Your task to perform on an android device: toggle improve location accuracy Image 0: 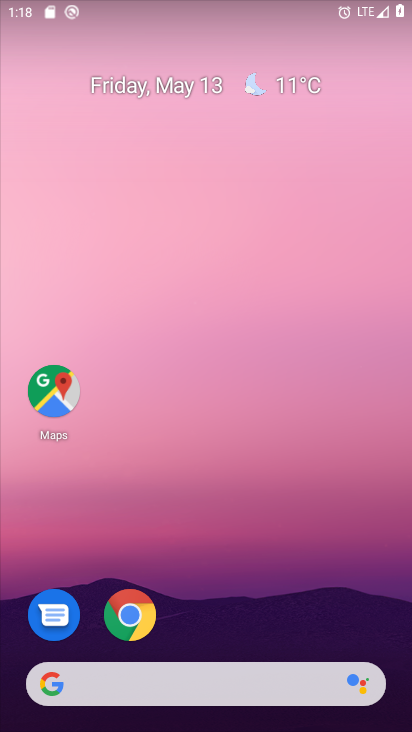
Step 0: drag from (195, 568) to (271, 72)
Your task to perform on an android device: toggle improve location accuracy Image 1: 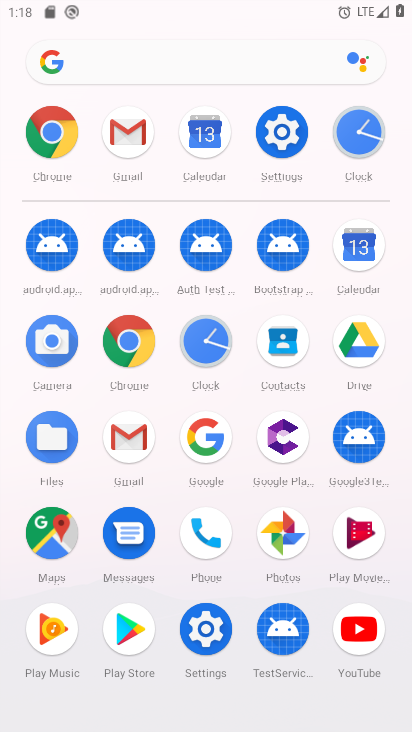
Step 1: click (276, 151)
Your task to perform on an android device: toggle improve location accuracy Image 2: 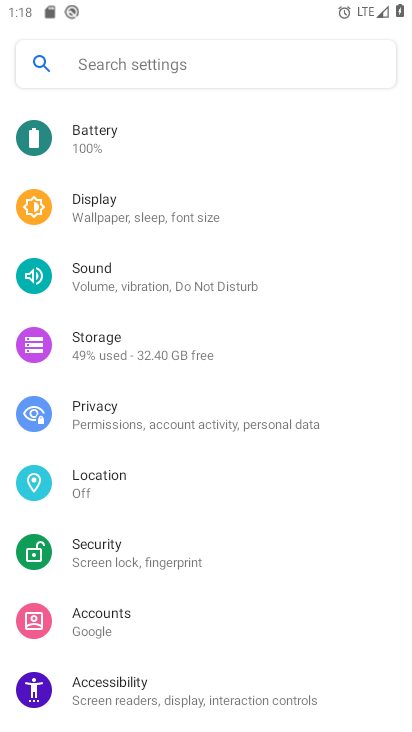
Step 2: click (180, 498)
Your task to perform on an android device: toggle improve location accuracy Image 3: 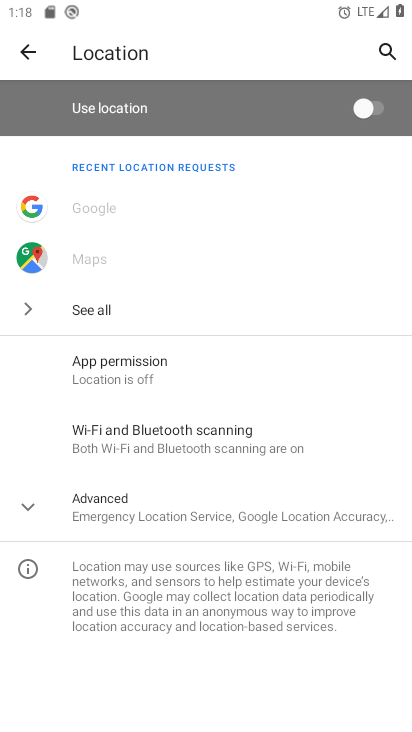
Step 3: click (33, 505)
Your task to perform on an android device: toggle improve location accuracy Image 4: 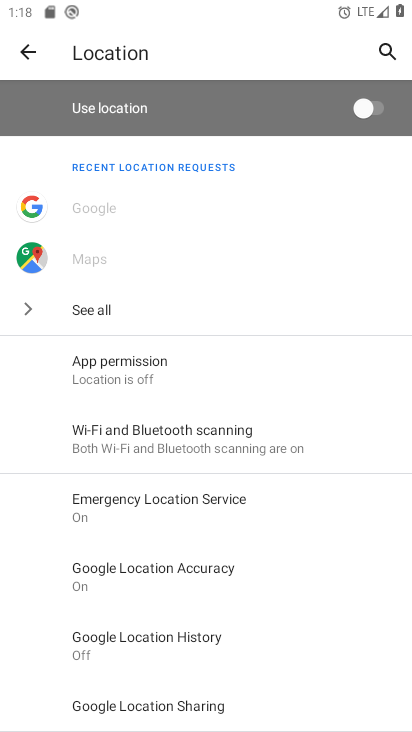
Step 4: click (151, 569)
Your task to perform on an android device: toggle improve location accuracy Image 5: 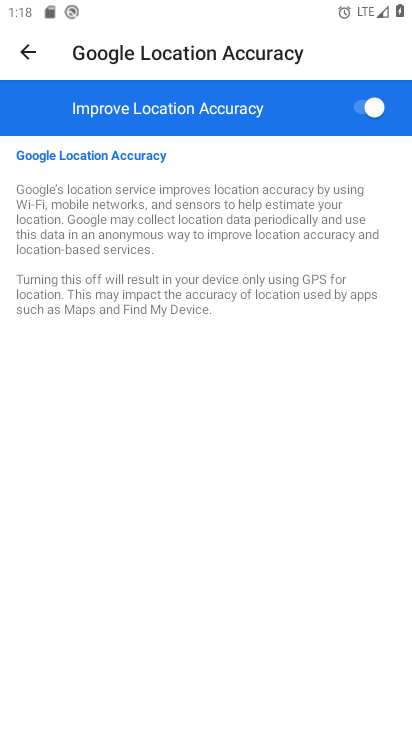
Step 5: click (367, 99)
Your task to perform on an android device: toggle improve location accuracy Image 6: 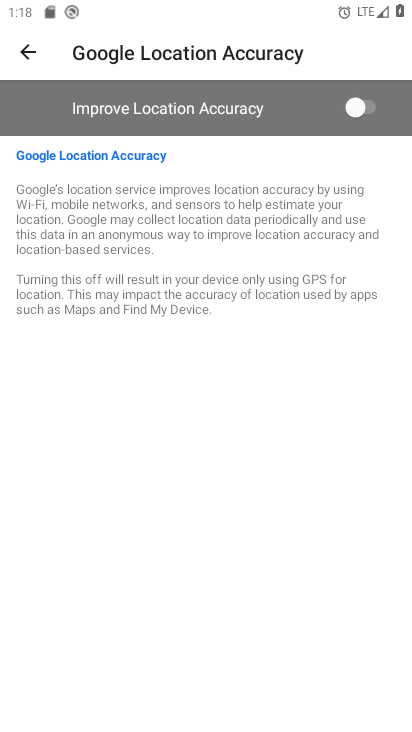
Step 6: task complete